Your task to perform on an android device: Open Youtube and go to "Your channel" Image 0: 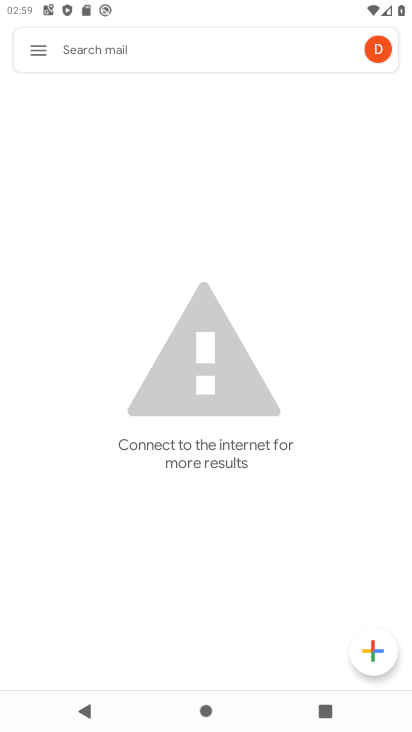
Step 0: press home button
Your task to perform on an android device: Open Youtube and go to "Your channel" Image 1: 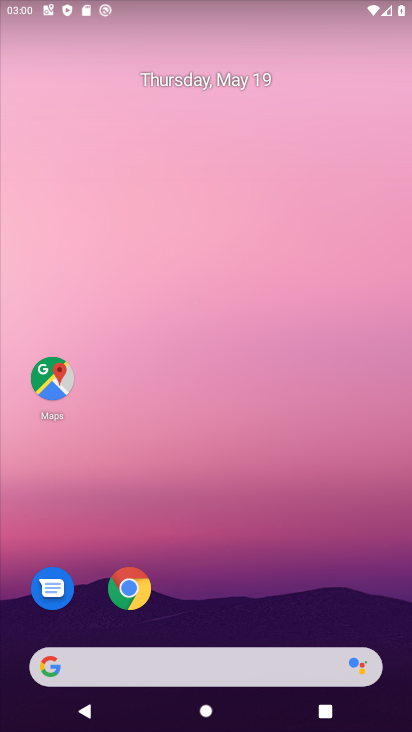
Step 1: drag from (230, 597) to (217, 78)
Your task to perform on an android device: Open Youtube and go to "Your channel" Image 2: 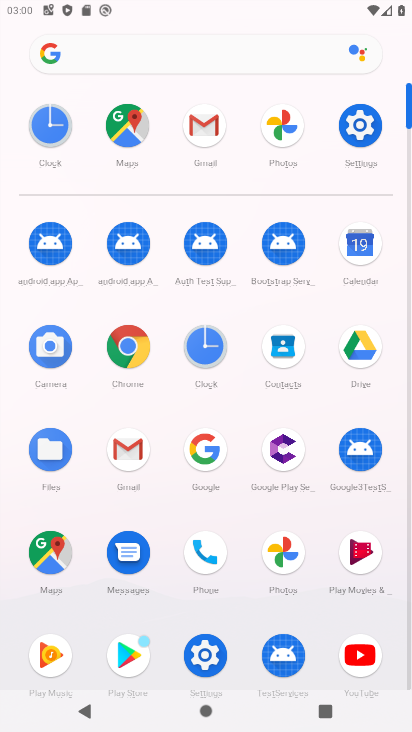
Step 2: click (357, 666)
Your task to perform on an android device: Open Youtube and go to "Your channel" Image 3: 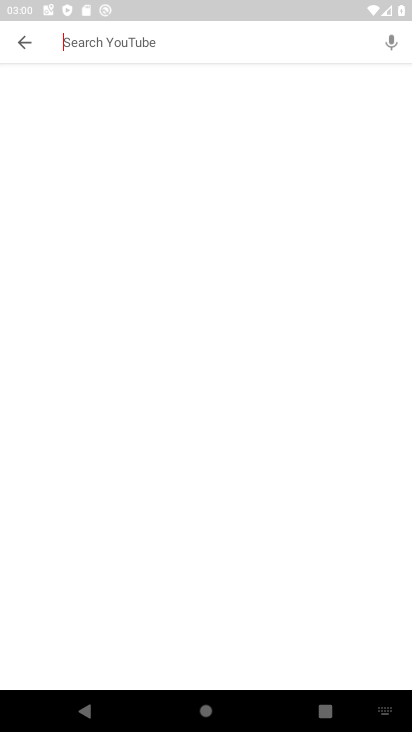
Step 3: task complete